Your task to perform on an android device: What's the weather like in Sydney? Image 0: 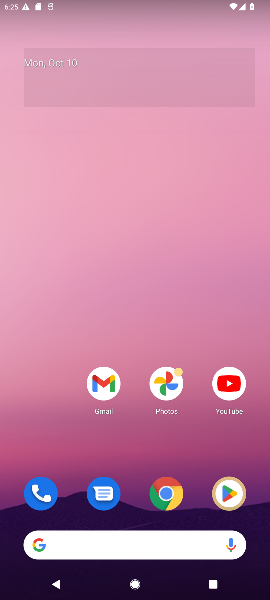
Step 0: click (137, 525)
Your task to perform on an android device: What's the weather like in Sydney? Image 1: 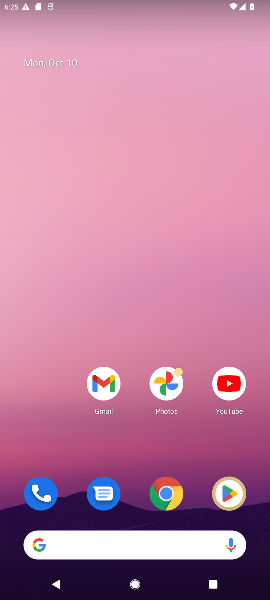
Step 1: drag from (137, 523) to (137, 185)
Your task to perform on an android device: What's the weather like in Sydney? Image 2: 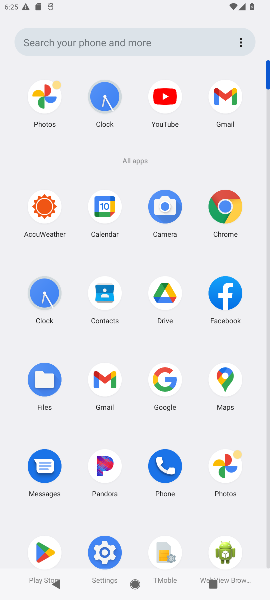
Step 2: click (166, 378)
Your task to perform on an android device: What's the weather like in Sydney? Image 3: 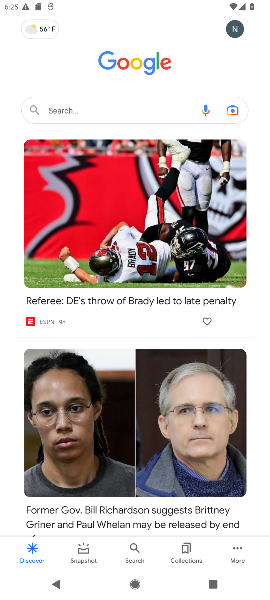
Step 3: click (118, 110)
Your task to perform on an android device: What's the weather like in Sydney? Image 4: 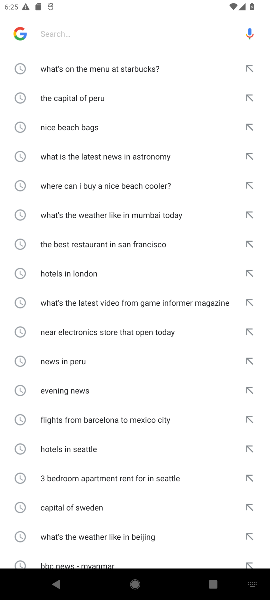
Step 4: type "What's the weather like in Sydney?"
Your task to perform on an android device: What's the weather like in Sydney? Image 5: 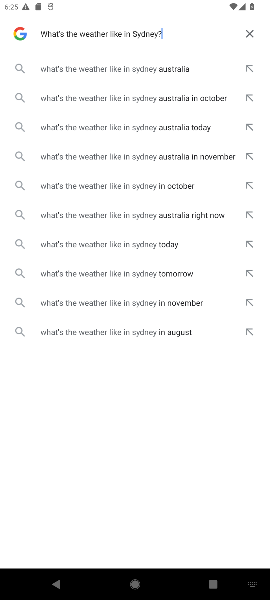
Step 5: click (135, 72)
Your task to perform on an android device: What's the weather like in Sydney? Image 6: 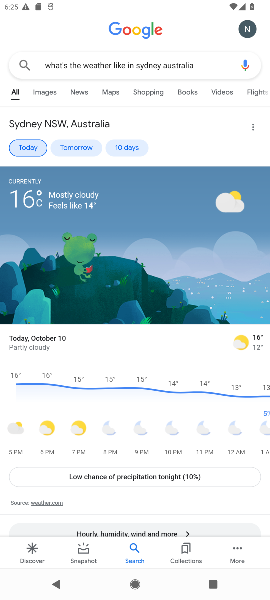
Step 6: task complete